Your task to perform on an android device: move an email to a new category in the gmail app Image 0: 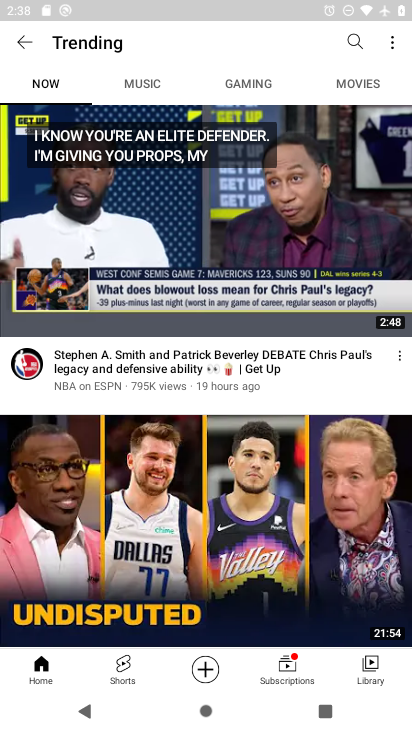
Step 0: press home button
Your task to perform on an android device: move an email to a new category in the gmail app Image 1: 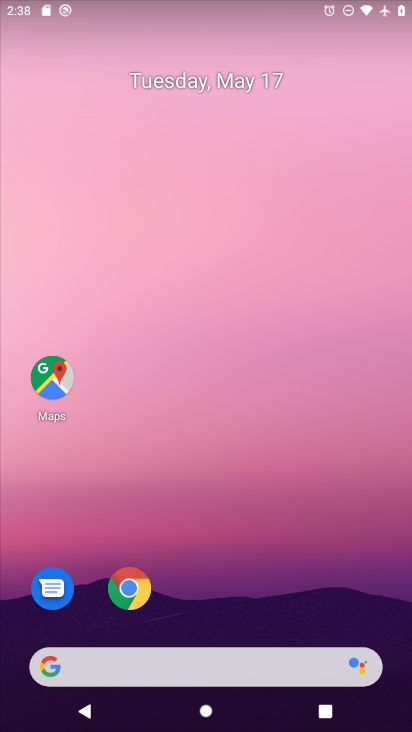
Step 1: drag from (189, 522) to (109, 138)
Your task to perform on an android device: move an email to a new category in the gmail app Image 2: 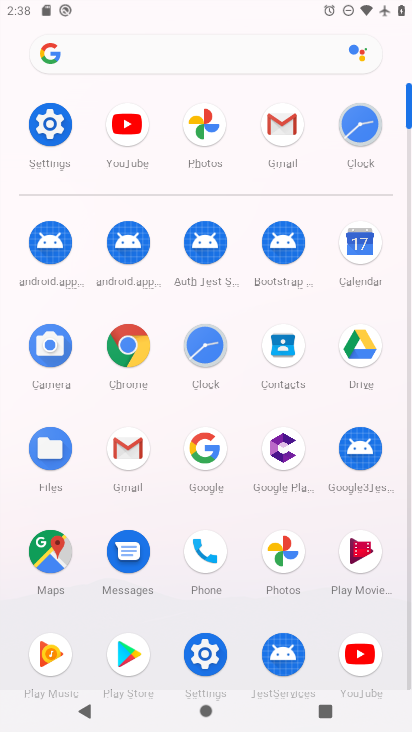
Step 2: click (143, 450)
Your task to perform on an android device: move an email to a new category in the gmail app Image 3: 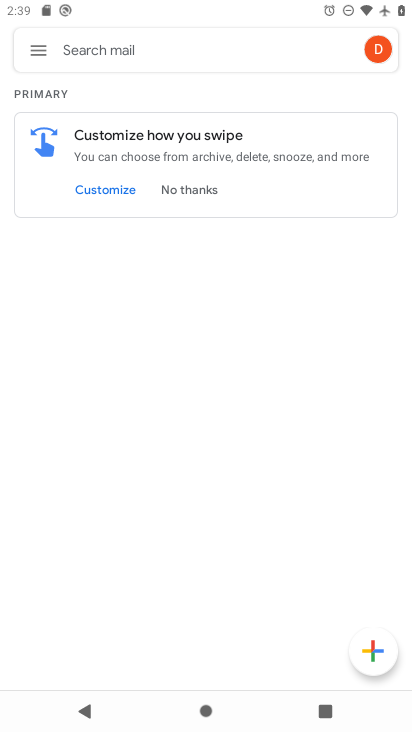
Step 3: click (37, 60)
Your task to perform on an android device: move an email to a new category in the gmail app Image 4: 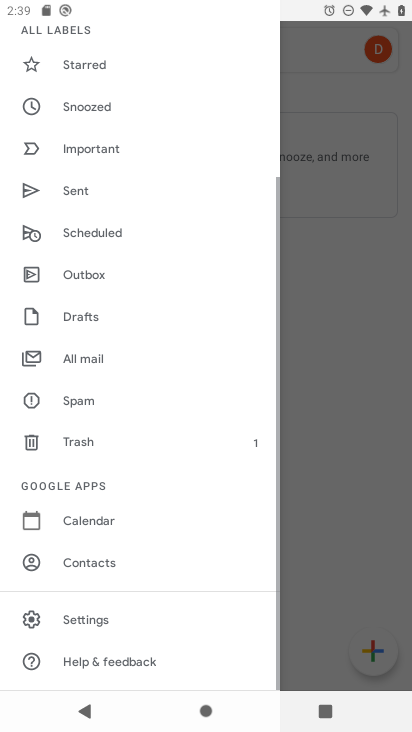
Step 4: drag from (83, 141) to (109, 206)
Your task to perform on an android device: move an email to a new category in the gmail app Image 5: 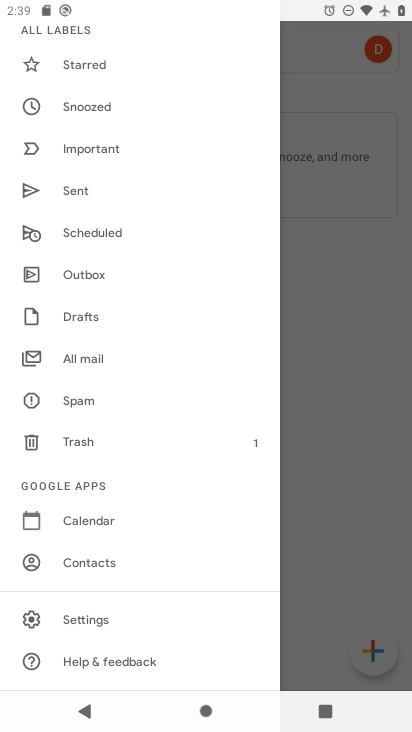
Step 5: click (88, 438)
Your task to perform on an android device: move an email to a new category in the gmail app Image 6: 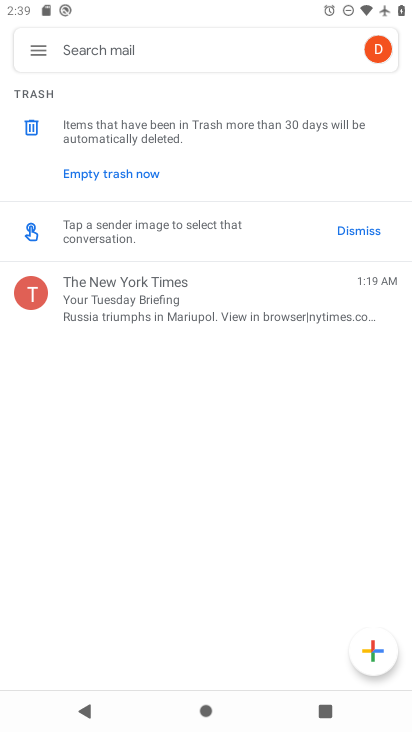
Step 6: click (308, 296)
Your task to perform on an android device: move an email to a new category in the gmail app Image 7: 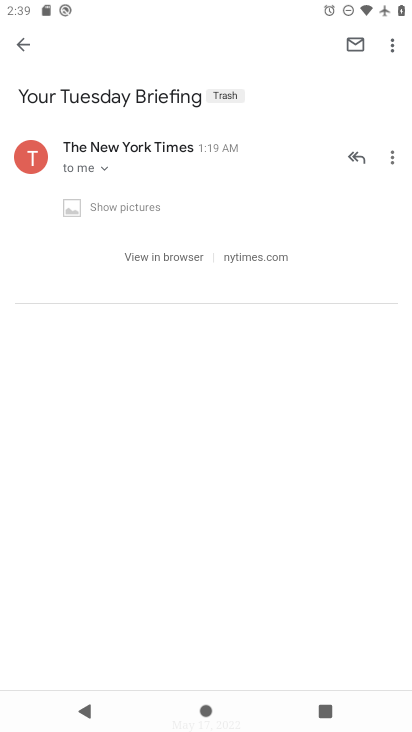
Step 7: click (390, 52)
Your task to perform on an android device: move an email to a new category in the gmail app Image 8: 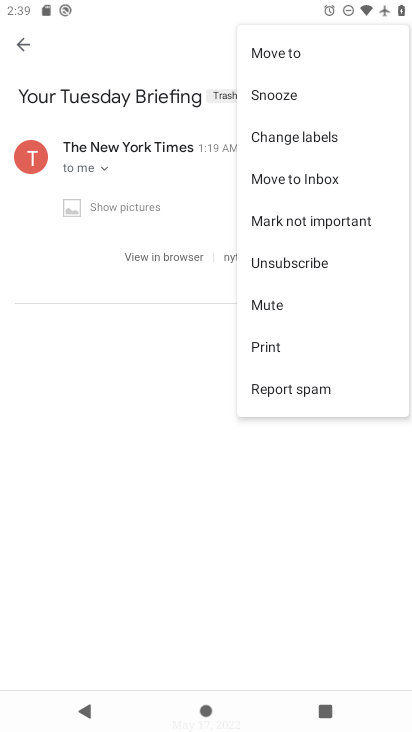
Step 8: click (282, 53)
Your task to perform on an android device: move an email to a new category in the gmail app Image 9: 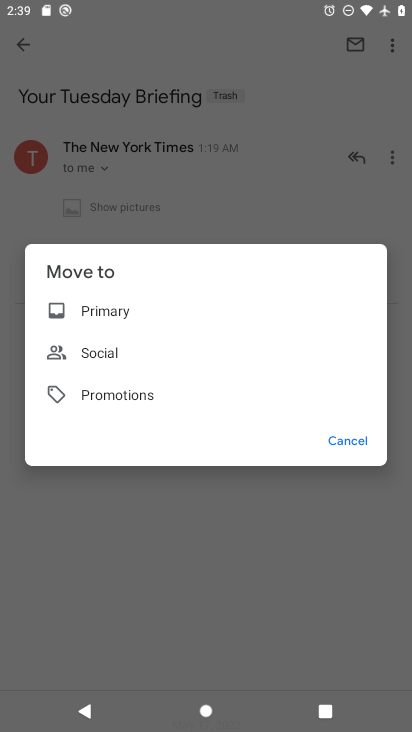
Step 9: click (91, 353)
Your task to perform on an android device: move an email to a new category in the gmail app Image 10: 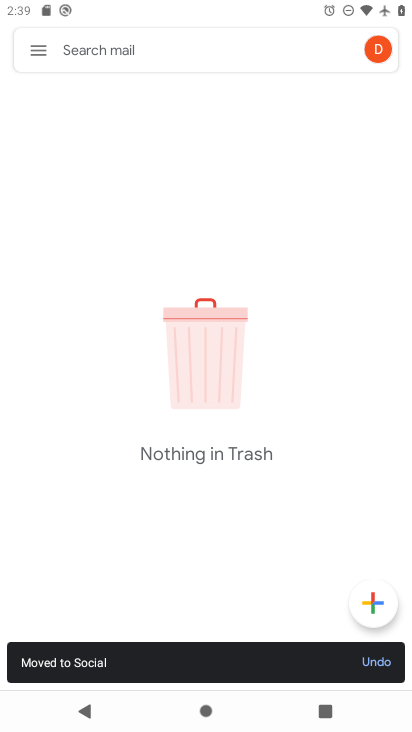
Step 10: task complete